Your task to perform on an android device: When is my next appointment? Image 0: 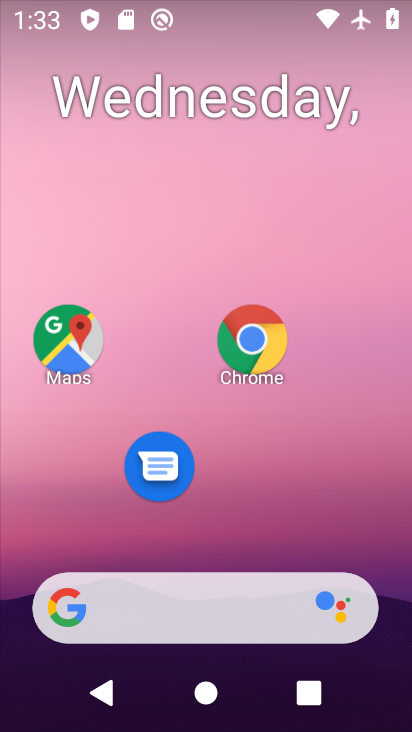
Step 0: drag from (161, 581) to (281, 156)
Your task to perform on an android device: When is my next appointment? Image 1: 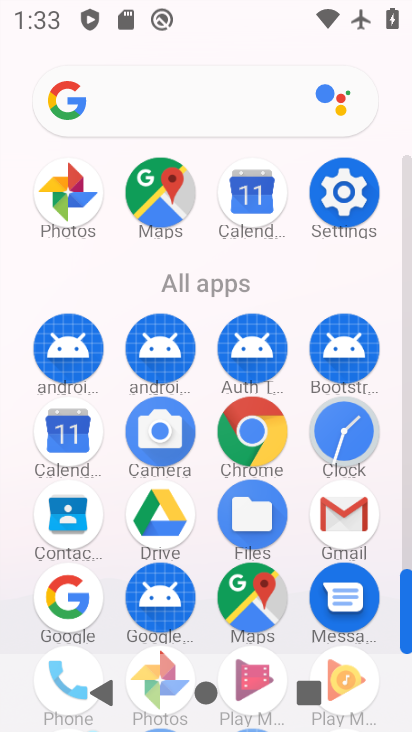
Step 1: click (69, 442)
Your task to perform on an android device: When is my next appointment? Image 2: 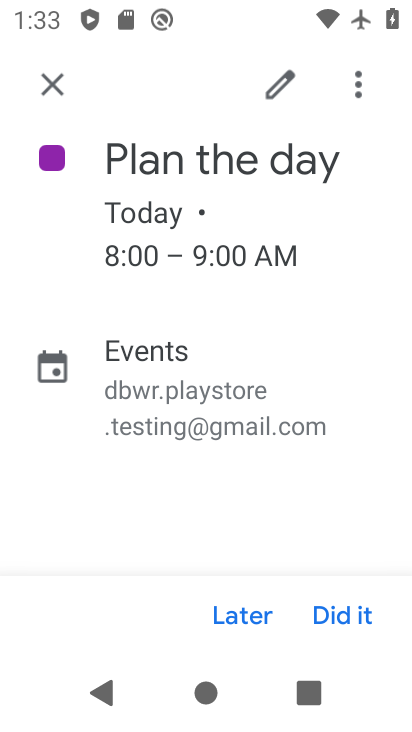
Step 2: task complete